Your task to perform on an android device: turn smart compose on in the gmail app Image 0: 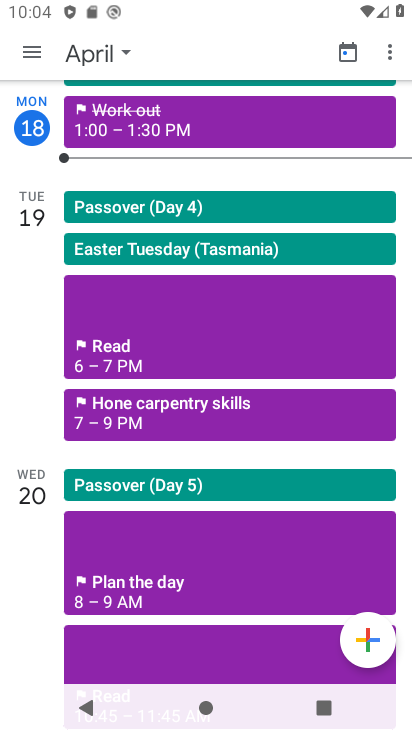
Step 0: click (129, 568)
Your task to perform on an android device: turn smart compose on in the gmail app Image 1: 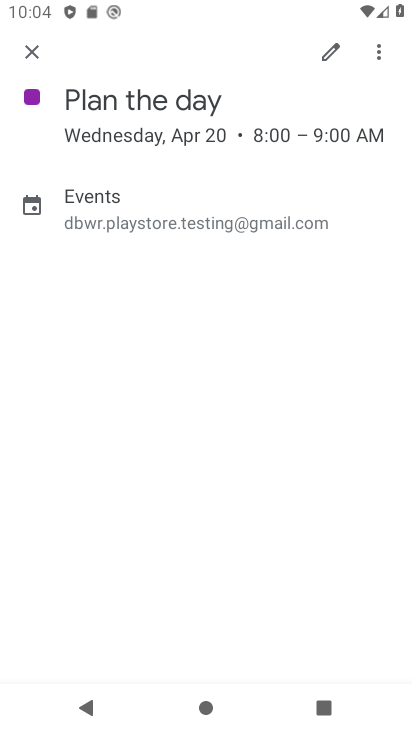
Step 1: press home button
Your task to perform on an android device: turn smart compose on in the gmail app Image 2: 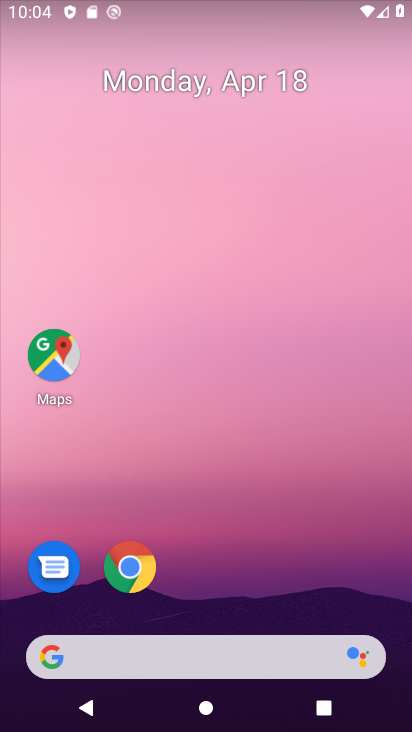
Step 2: drag from (225, 450) to (271, 125)
Your task to perform on an android device: turn smart compose on in the gmail app Image 3: 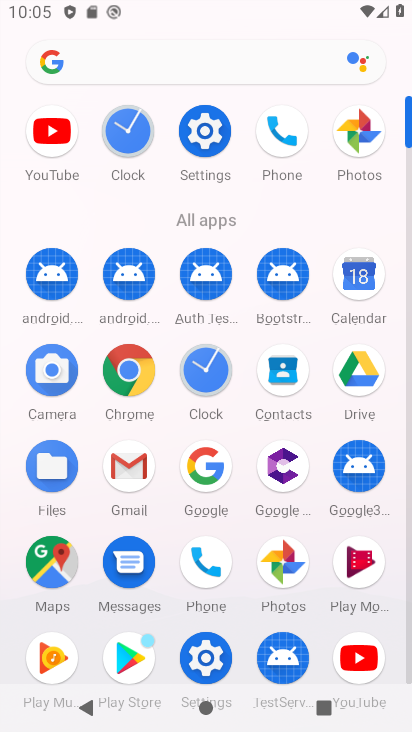
Step 3: click (126, 469)
Your task to perform on an android device: turn smart compose on in the gmail app Image 4: 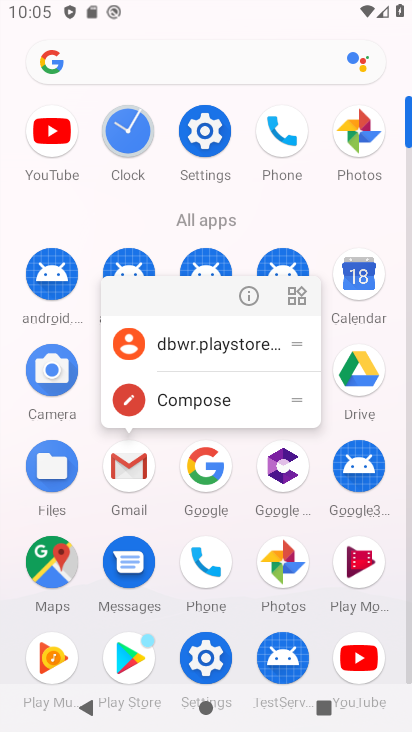
Step 4: click (126, 469)
Your task to perform on an android device: turn smart compose on in the gmail app Image 5: 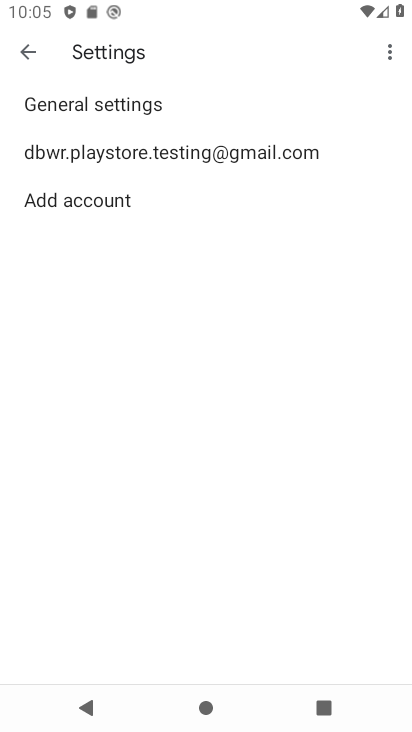
Step 5: press back button
Your task to perform on an android device: turn smart compose on in the gmail app Image 6: 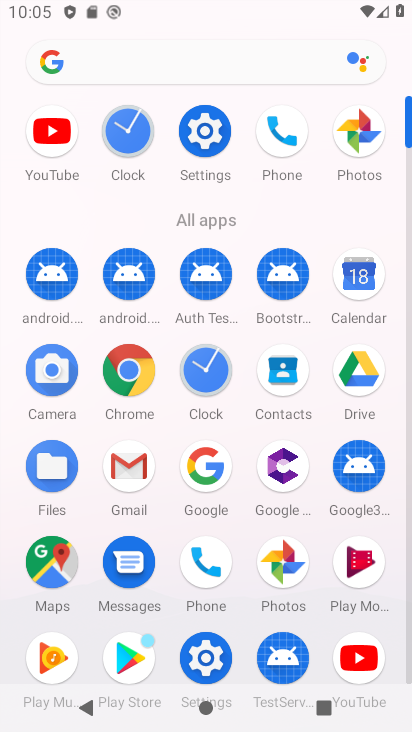
Step 6: click (117, 464)
Your task to perform on an android device: turn smart compose on in the gmail app Image 7: 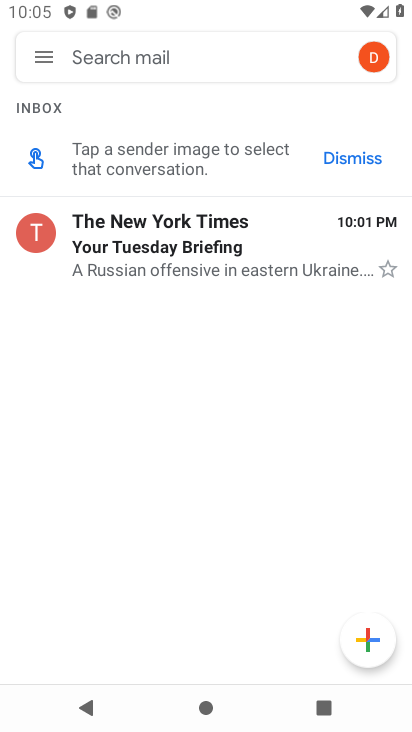
Step 7: click (45, 53)
Your task to perform on an android device: turn smart compose on in the gmail app Image 8: 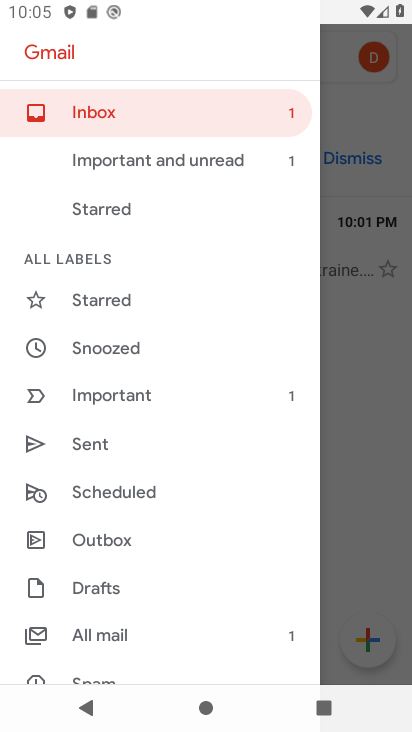
Step 8: drag from (90, 660) to (120, 140)
Your task to perform on an android device: turn smart compose on in the gmail app Image 9: 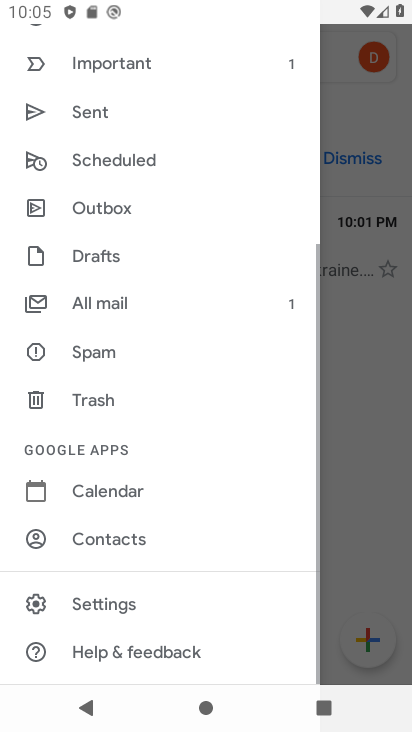
Step 9: click (98, 602)
Your task to perform on an android device: turn smart compose on in the gmail app Image 10: 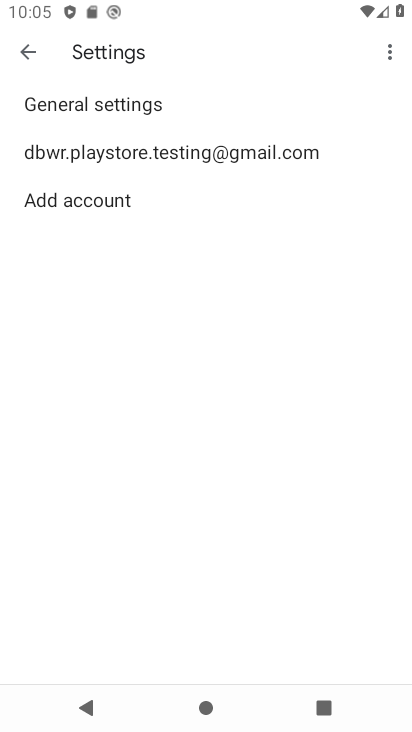
Step 10: click (117, 151)
Your task to perform on an android device: turn smart compose on in the gmail app Image 11: 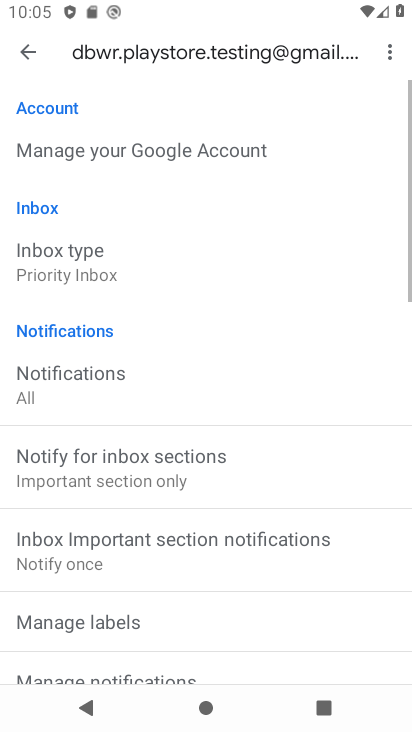
Step 11: task complete